Your task to perform on an android device: Show me popular videos on Youtube Image 0: 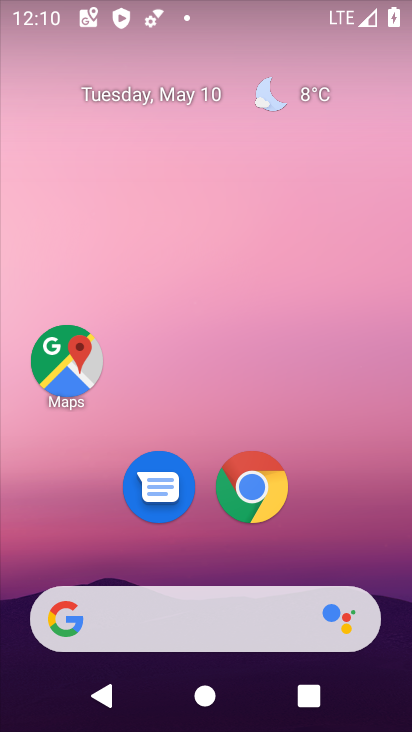
Step 0: drag from (235, 244) to (235, 110)
Your task to perform on an android device: Show me popular videos on Youtube Image 1: 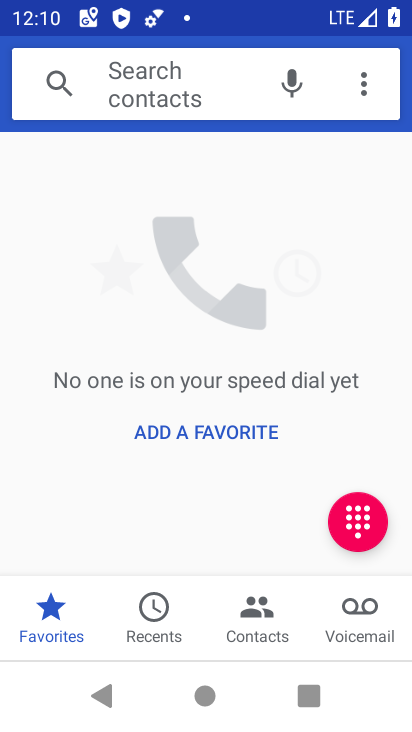
Step 1: press home button
Your task to perform on an android device: Show me popular videos on Youtube Image 2: 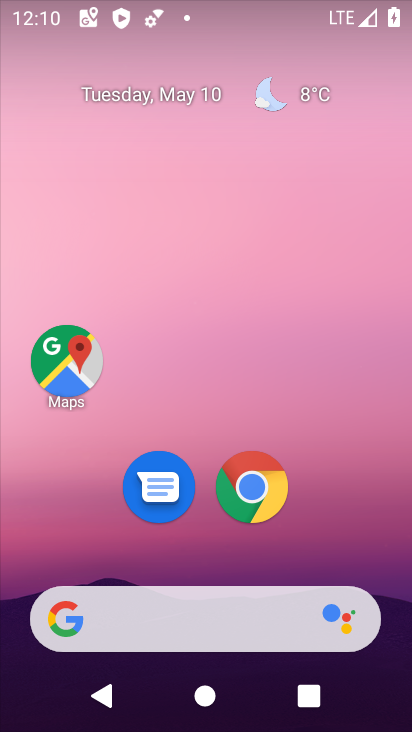
Step 2: drag from (202, 554) to (215, 138)
Your task to perform on an android device: Show me popular videos on Youtube Image 3: 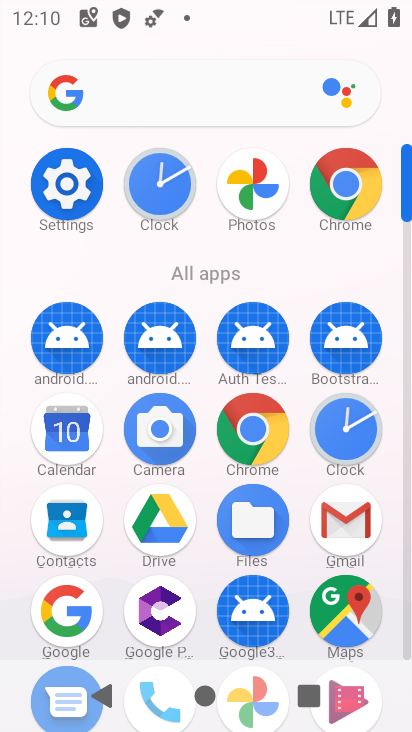
Step 3: drag from (210, 545) to (223, 216)
Your task to perform on an android device: Show me popular videos on Youtube Image 4: 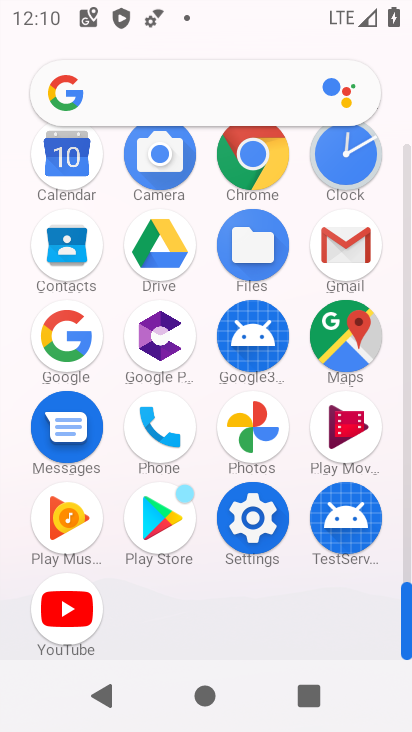
Step 4: click (64, 600)
Your task to perform on an android device: Show me popular videos on Youtube Image 5: 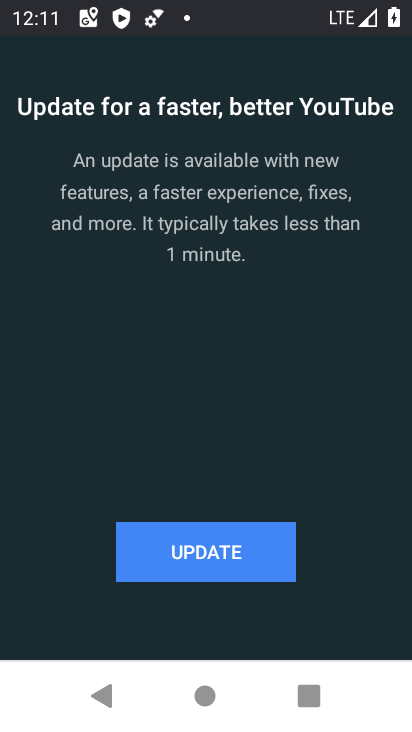
Step 5: click (208, 550)
Your task to perform on an android device: Show me popular videos on Youtube Image 6: 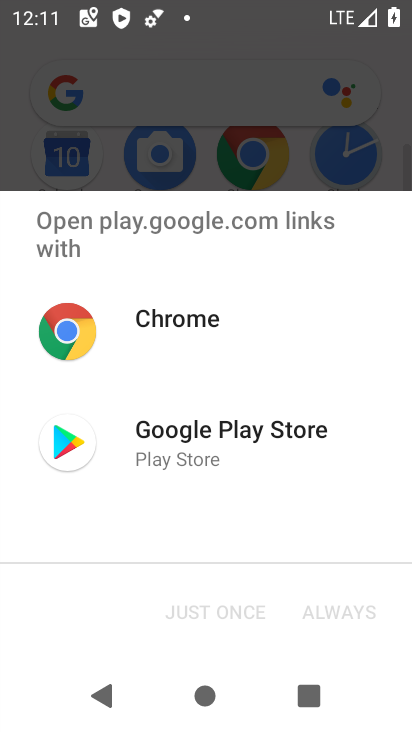
Step 6: click (140, 445)
Your task to perform on an android device: Show me popular videos on Youtube Image 7: 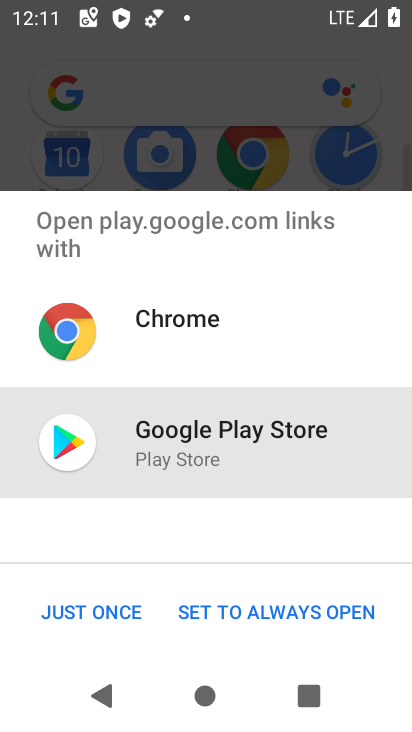
Step 7: click (109, 602)
Your task to perform on an android device: Show me popular videos on Youtube Image 8: 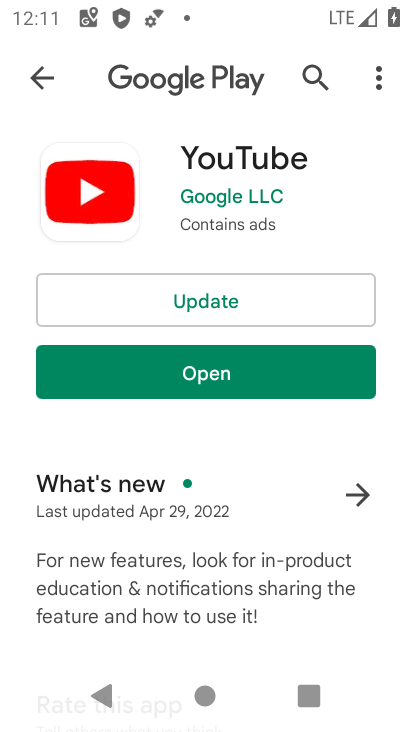
Step 8: click (205, 310)
Your task to perform on an android device: Show me popular videos on Youtube Image 9: 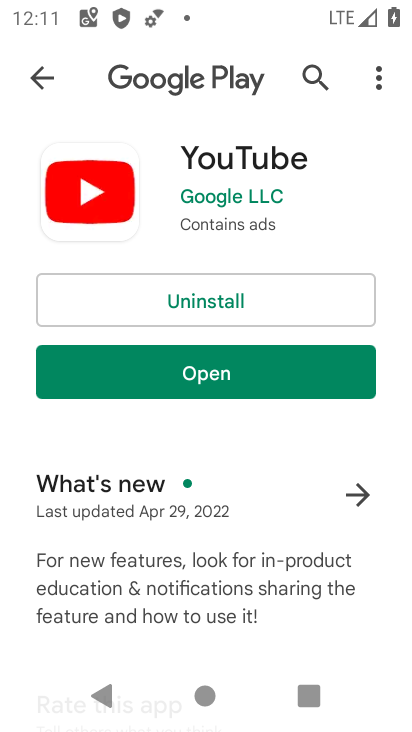
Step 9: click (211, 380)
Your task to perform on an android device: Show me popular videos on Youtube Image 10: 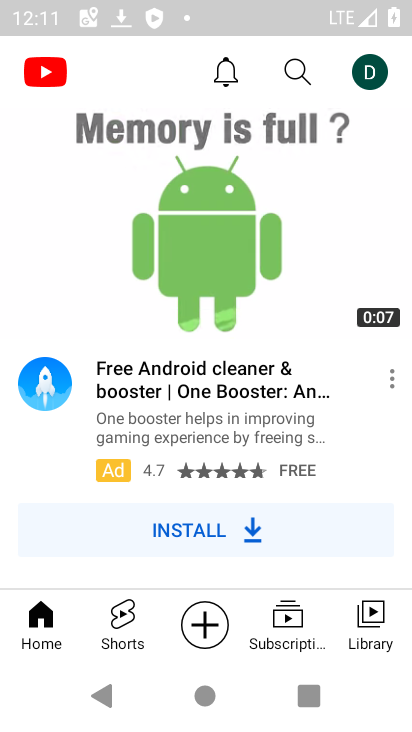
Step 10: drag from (39, 323) to (74, 126)
Your task to perform on an android device: Show me popular videos on Youtube Image 11: 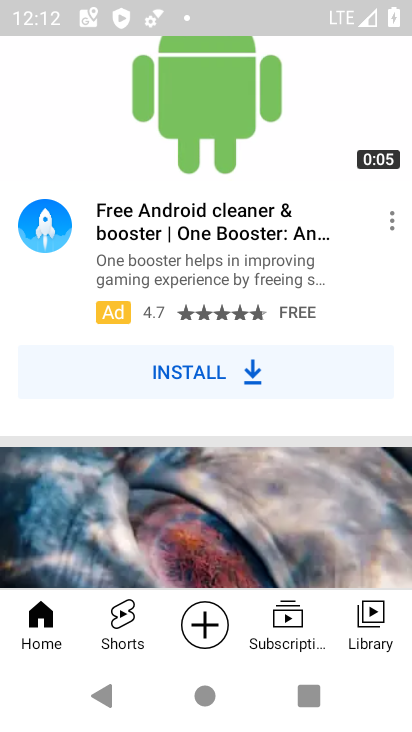
Step 11: drag from (80, 493) to (99, 123)
Your task to perform on an android device: Show me popular videos on Youtube Image 12: 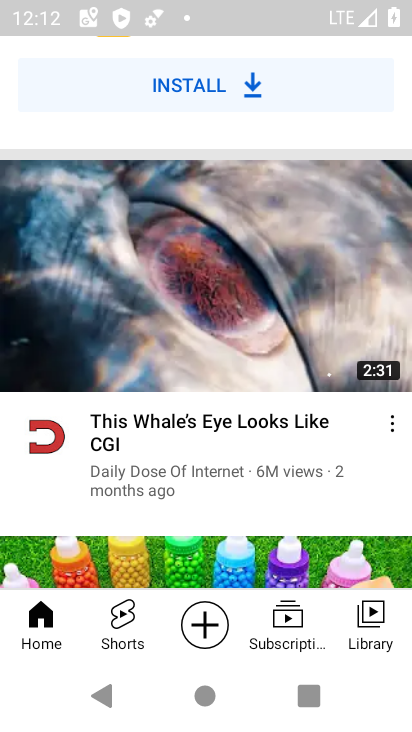
Step 12: drag from (74, 121) to (73, 441)
Your task to perform on an android device: Show me popular videos on Youtube Image 13: 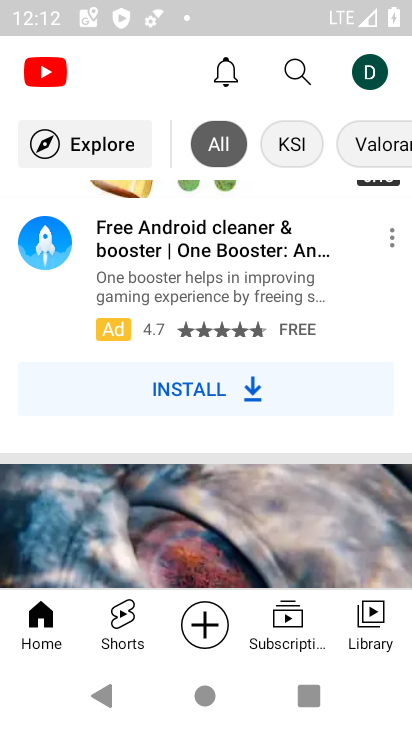
Step 13: click (84, 147)
Your task to perform on an android device: Show me popular videos on Youtube Image 14: 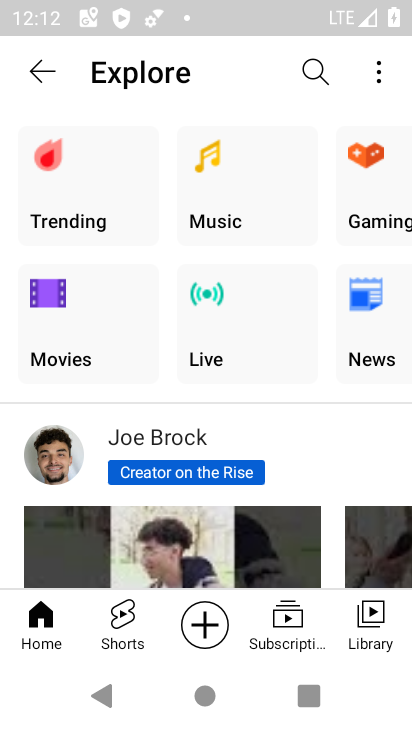
Step 14: click (86, 182)
Your task to perform on an android device: Show me popular videos on Youtube Image 15: 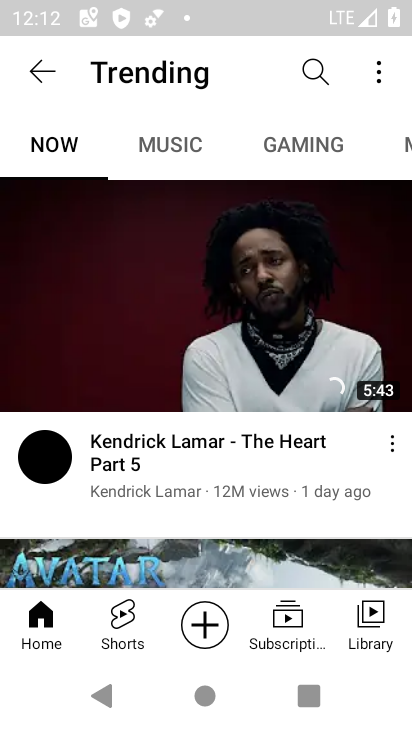
Step 15: task complete